Your task to perform on an android device: Go to Google Image 0: 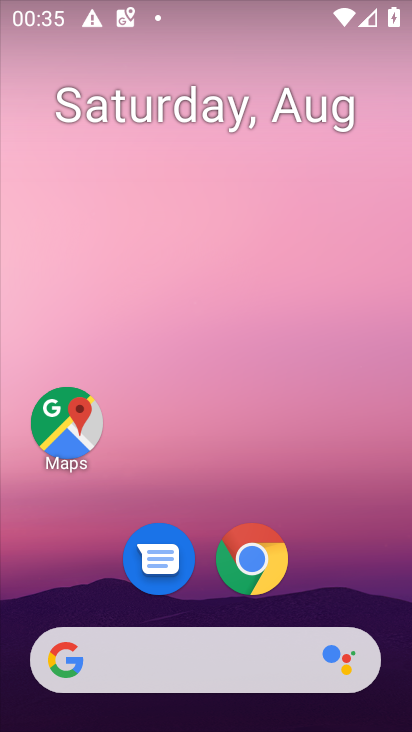
Step 0: drag from (342, 593) to (251, 108)
Your task to perform on an android device: Go to Google Image 1: 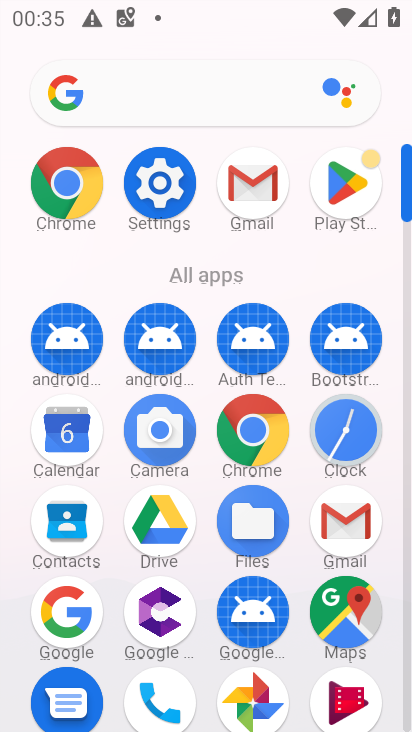
Step 1: click (80, 632)
Your task to perform on an android device: Go to Google Image 2: 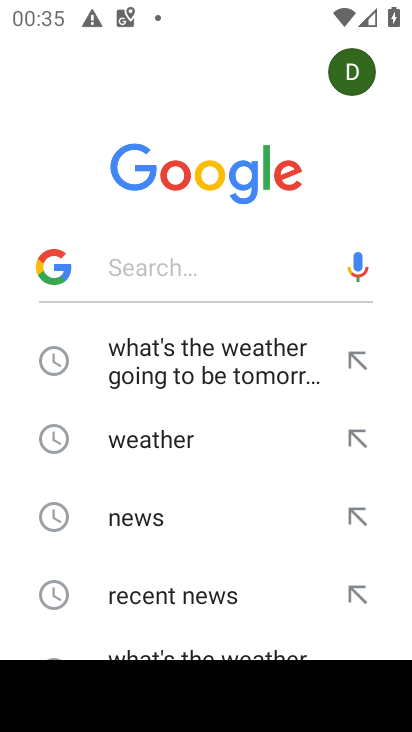
Step 2: task complete